Your task to perform on an android device: Find coffee shops on Maps Image 0: 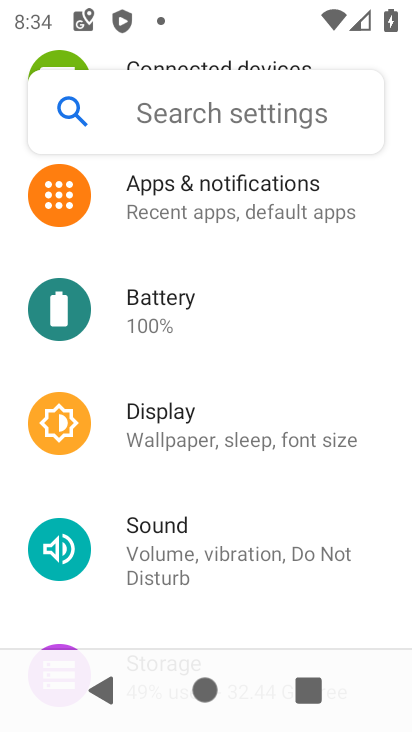
Step 0: press home button
Your task to perform on an android device: Find coffee shops on Maps Image 1: 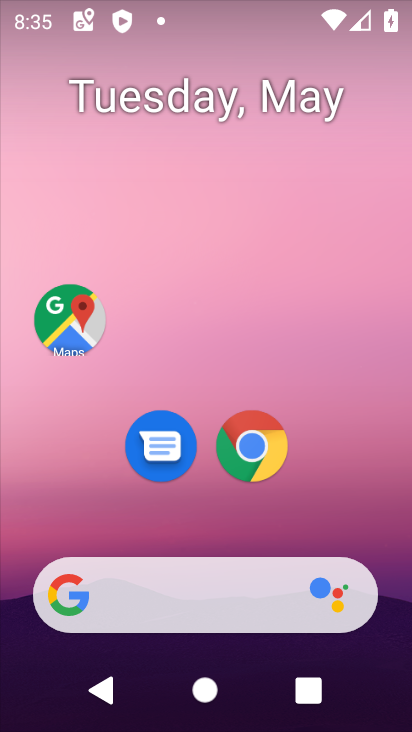
Step 1: click (64, 317)
Your task to perform on an android device: Find coffee shops on Maps Image 2: 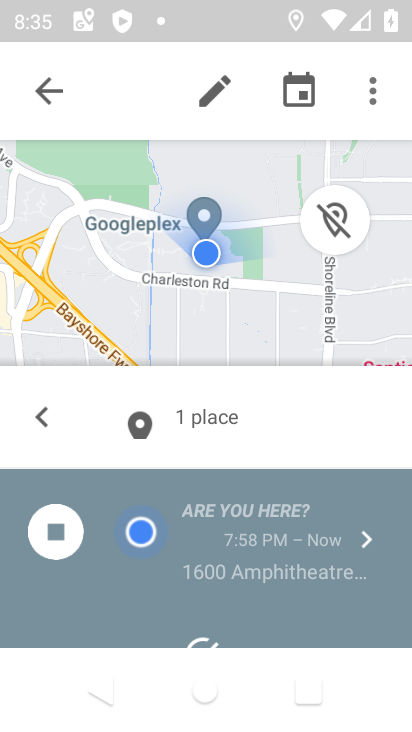
Step 2: click (47, 96)
Your task to perform on an android device: Find coffee shops on Maps Image 3: 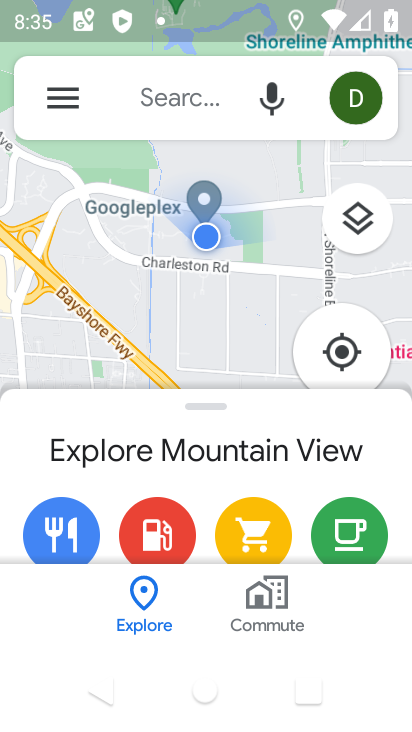
Step 3: click (156, 103)
Your task to perform on an android device: Find coffee shops on Maps Image 4: 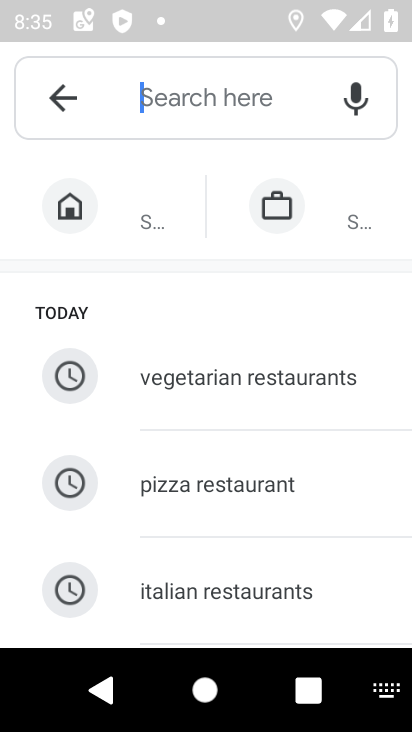
Step 4: type "coffee shops"
Your task to perform on an android device: Find coffee shops on Maps Image 5: 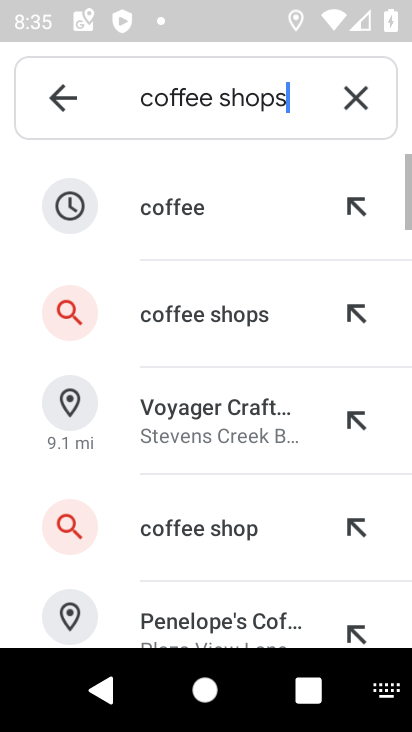
Step 5: click (195, 318)
Your task to perform on an android device: Find coffee shops on Maps Image 6: 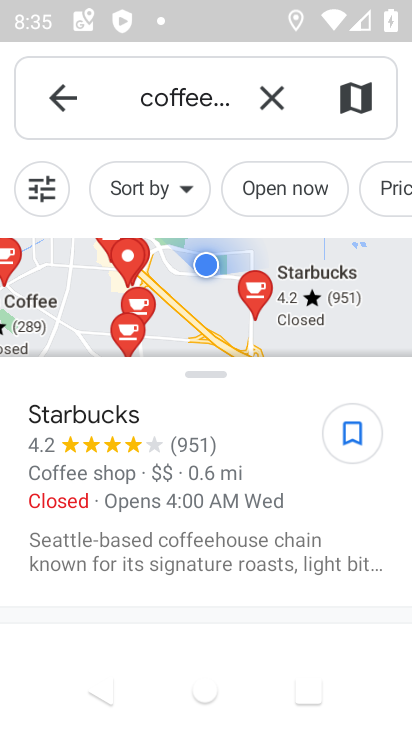
Step 6: task complete